Your task to perform on an android device: Go to Google Image 0: 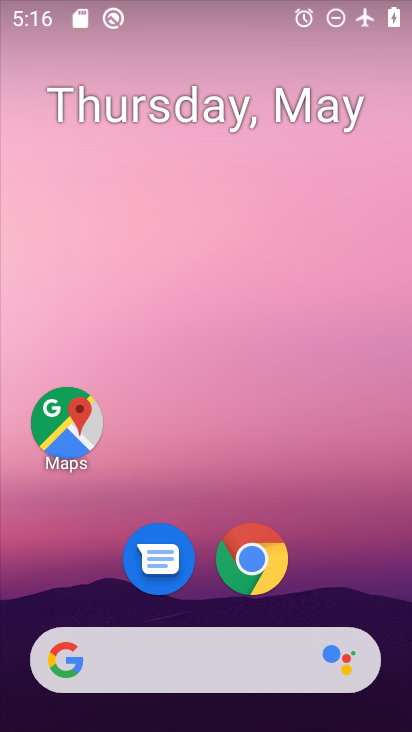
Step 0: drag from (346, 473) to (222, 15)
Your task to perform on an android device: Go to Google Image 1: 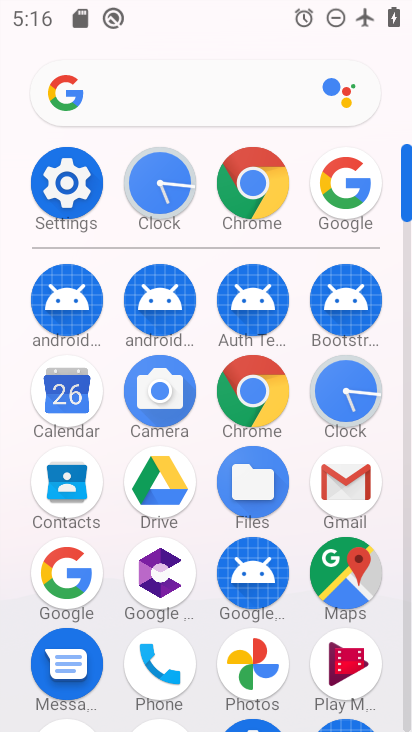
Step 1: click (70, 572)
Your task to perform on an android device: Go to Google Image 2: 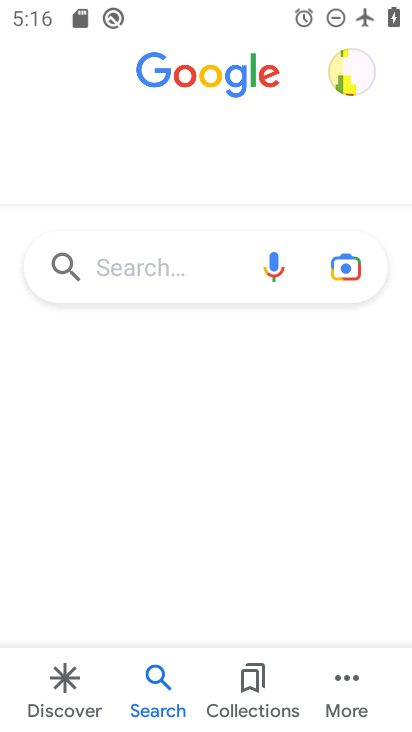
Step 2: task complete